Your task to perform on an android device: Open settings on Google Maps Image 0: 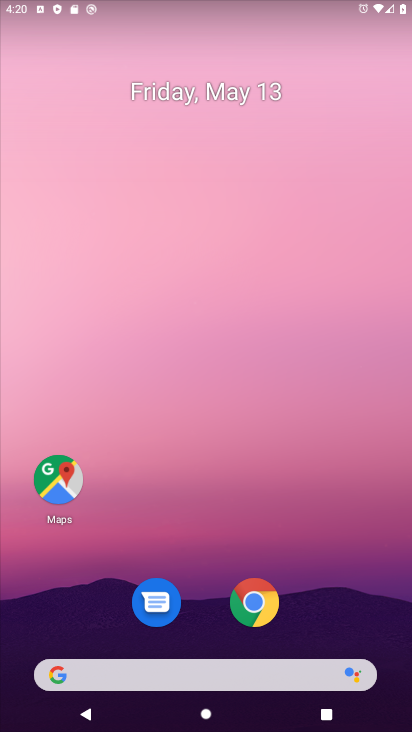
Step 0: click (59, 480)
Your task to perform on an android device: Open settings on Google Maps Image 1: 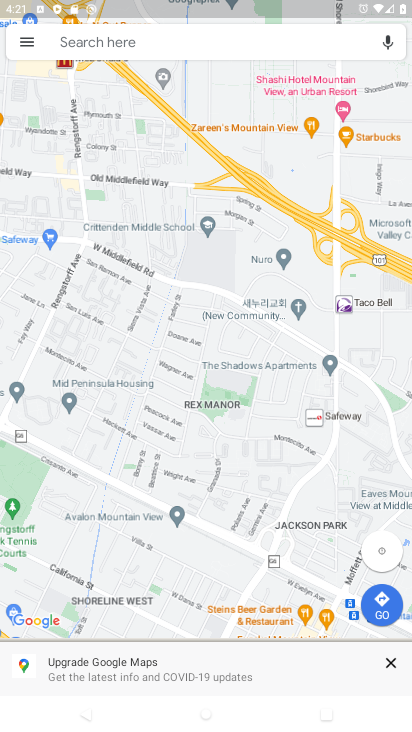
Step 1: click (27, 41)
Your task to perform on an android device: Open settings on Google Maps Image 2: 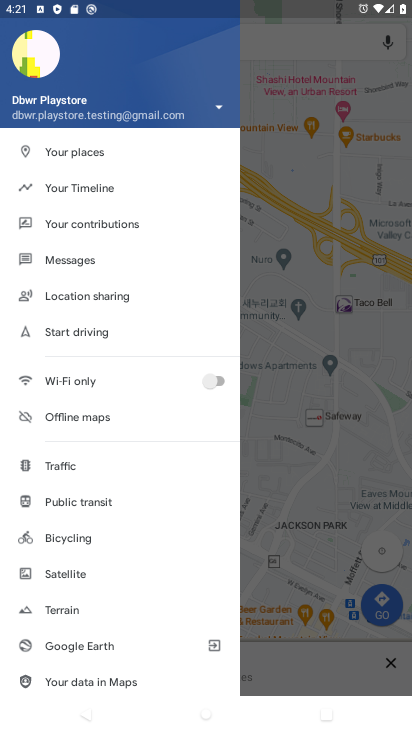
Step 2: drag from (95, 660) to (110, 306)
Your task to perform on an android device: Open settings on Google Maps Image 3: 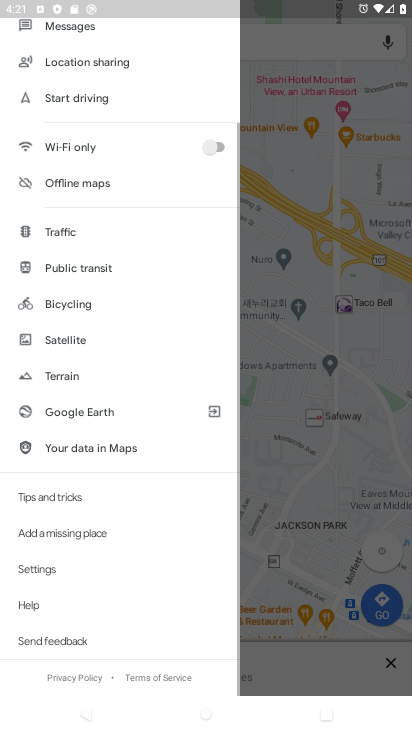
Step 3: click (42, 575)
Your task to perform on an android device: Open settings on Google Maps Image 4: 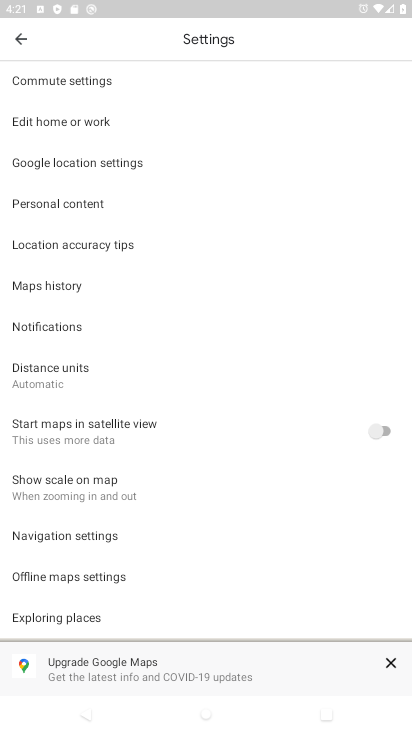
Step 4: task complete